Your task to perform on an android device: turn off notifications in google photos Image 0: 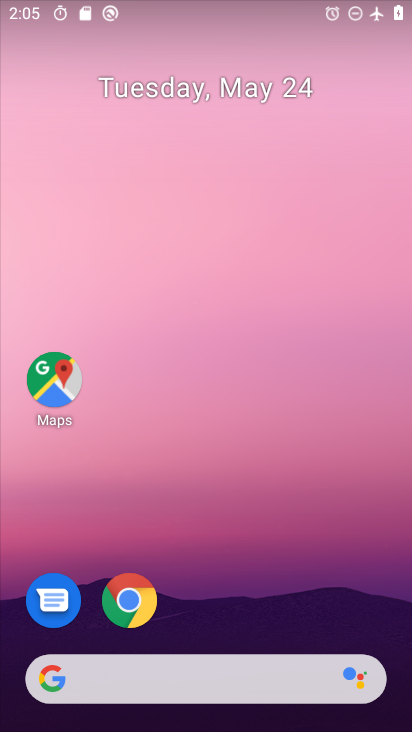
Step 0: drag from (217, 393) to (200, 135)
Your task to perform on an android device: turn off notifications in google photos Image 1: 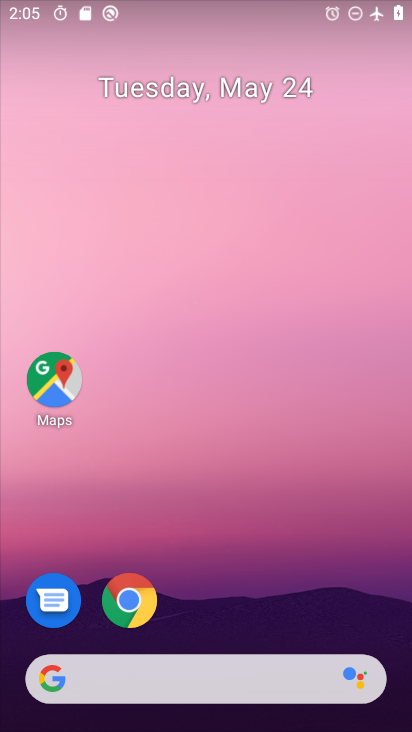
Step 1: drag from (259, 561) to (267, 228)
Your task to perform on an android device: turn off notifications in google photos Image 2: 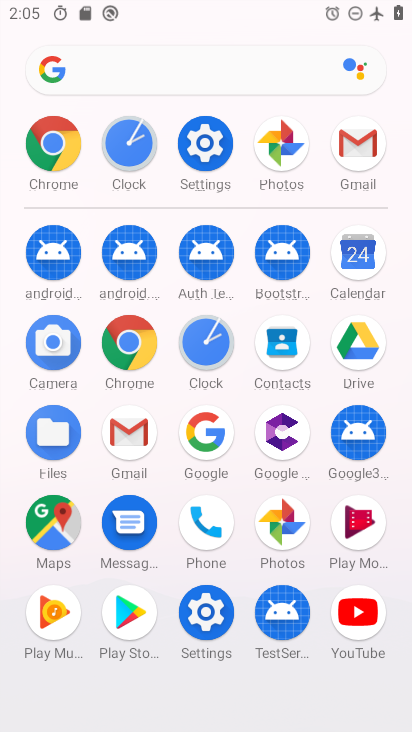
Step 2: click (278, 516)
Your task to perform on an android device: turn off notifications in google photos Image 3: 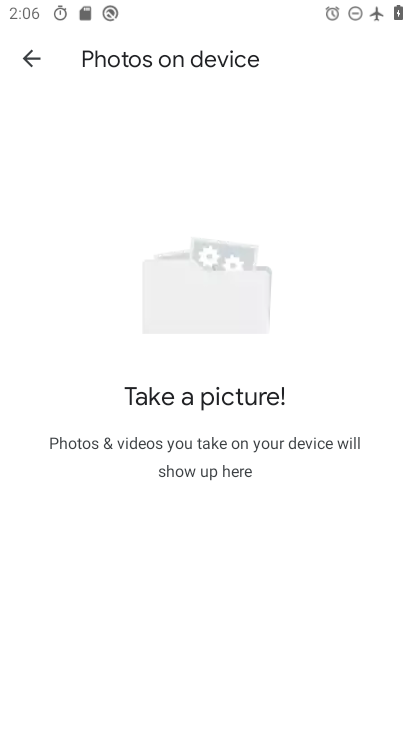
Step 3: click (47, 58)
Your task to perform on an android device: turn off notifications in google photos Image 4: 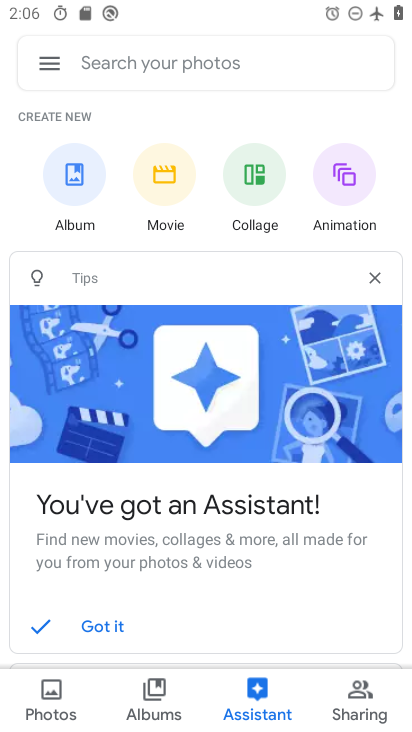
Step 4: click (50, 58)
Your task to perform on an android device: turn off notifications in google photos Image 5: 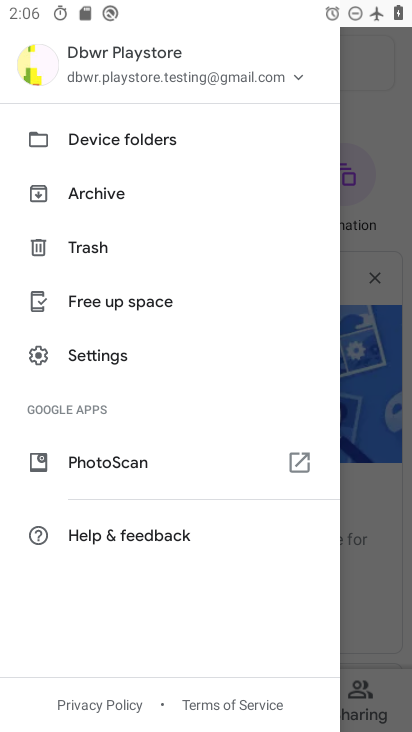
Step 5: click (120, 354)
Your task to perform on an android device: turn off notifications in google photos Image 6: 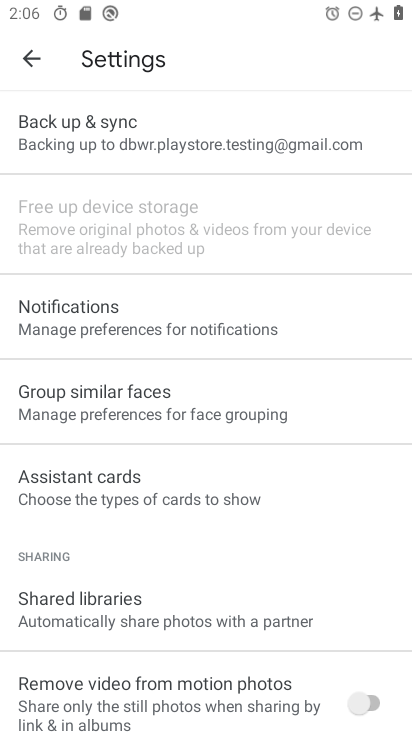
Step 6: drag from (180, 627) to (253, 728)
Your task to perform on an android device: turn off notifications in google photos Image 7: 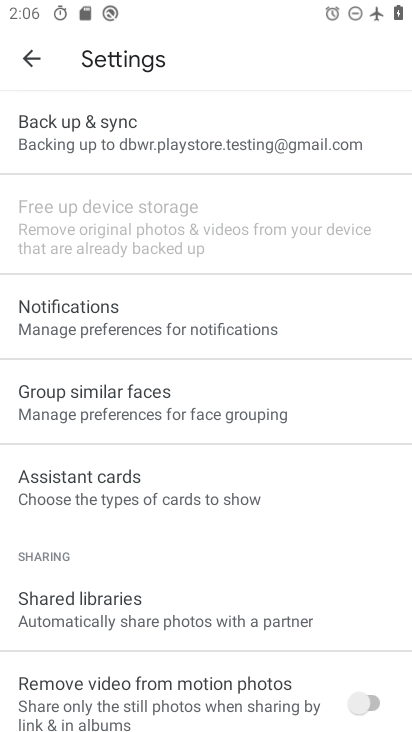
Step 7: drag from (236, 316) to (244, 675)
Your task to perform on an android device: turn off notifications in google photos Image 8: 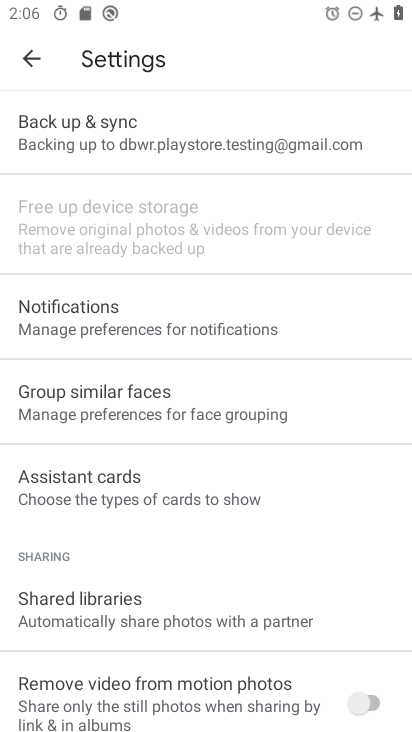
Step 8: click (187, 316)
Your task to perform on an android device: turn off notifications in google photos Image 9: 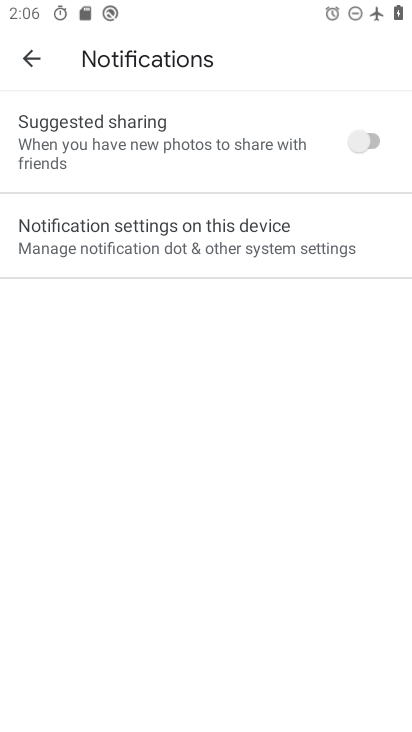
Step 9: click (194, 245)
Your task to perform on an android device: turn off notifications in google photos Image 10: 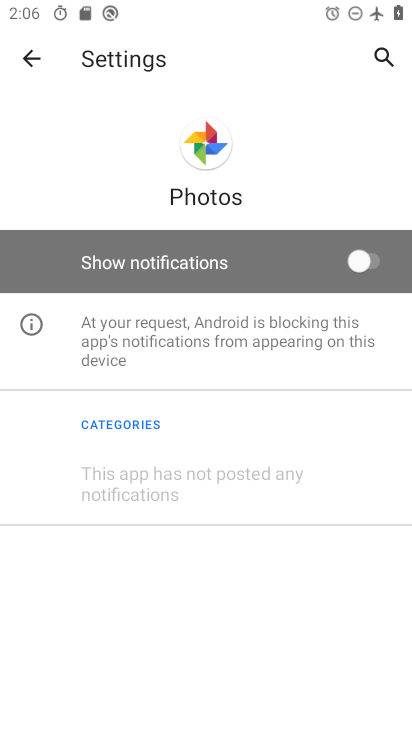
Step 10: task complete